Your task to perform on an android device: turn on the 24-hour format for clock Image 0: 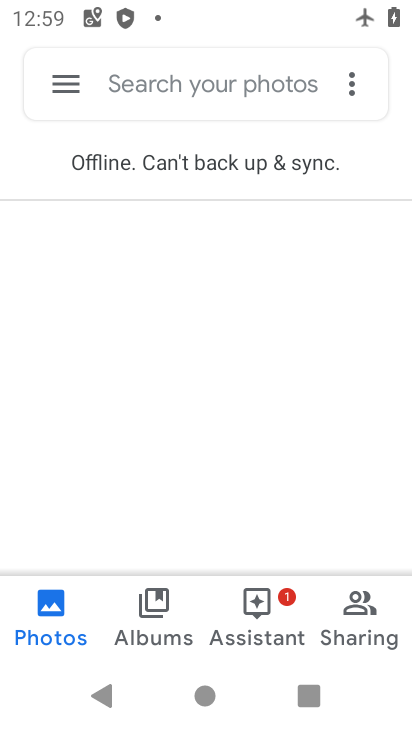
Step 0: press home button
Your task to perform on an android device: turn on the 24-hour format for clock Image 1: 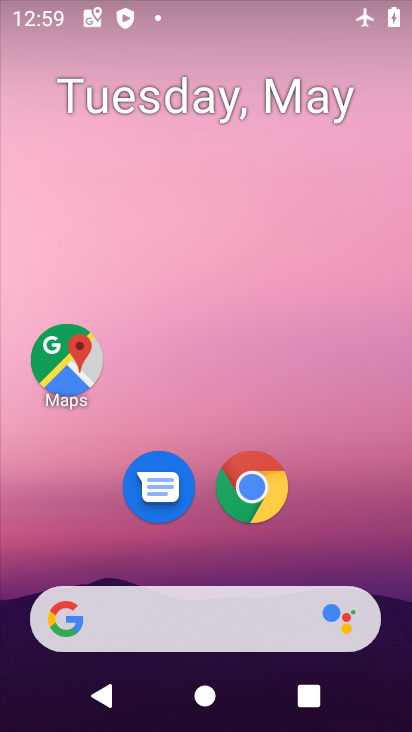
Step 1: drag from (273, 406) to (247, 48)
Your task to perform on an android device: turn on the 24-hour format for clock Image 2: 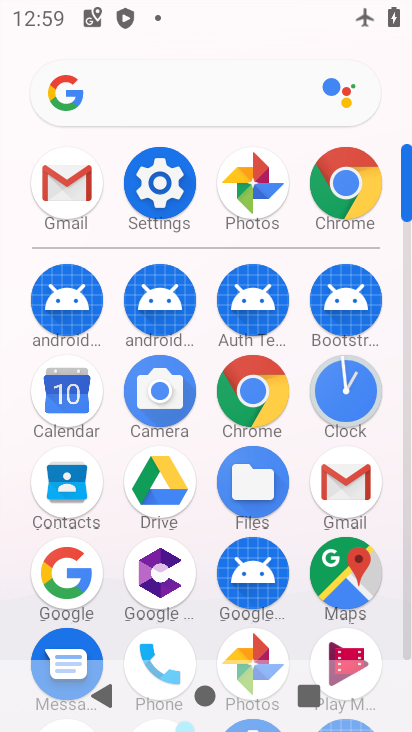
Step 2: click (355, 386)
Your task to perform on an android device: turn on the 24-hour format for clock Image 3: 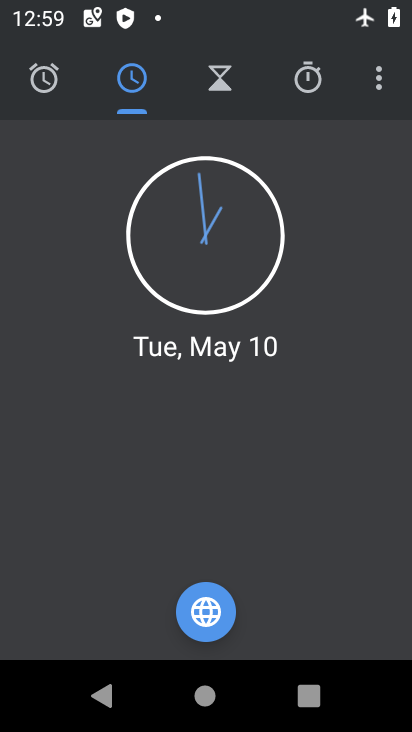
Step 3: click (376, 88)
Your task to perform on an android device: turn on the 24-hour format for clock Image 4: 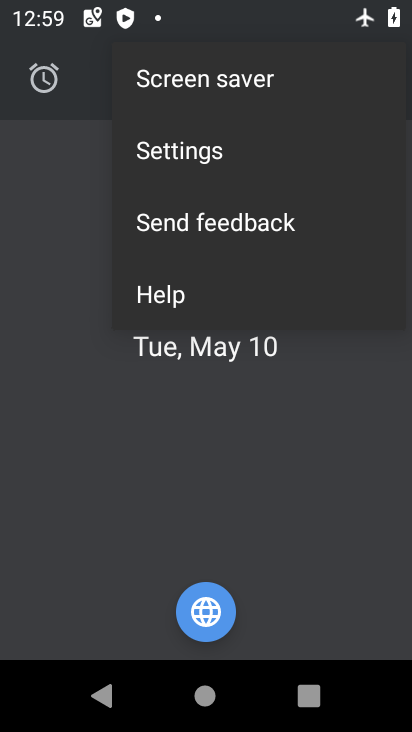
Step 4: click (206, 155)
Your task to perform on an android device: turn on the 24-hour format for clock Image 5: 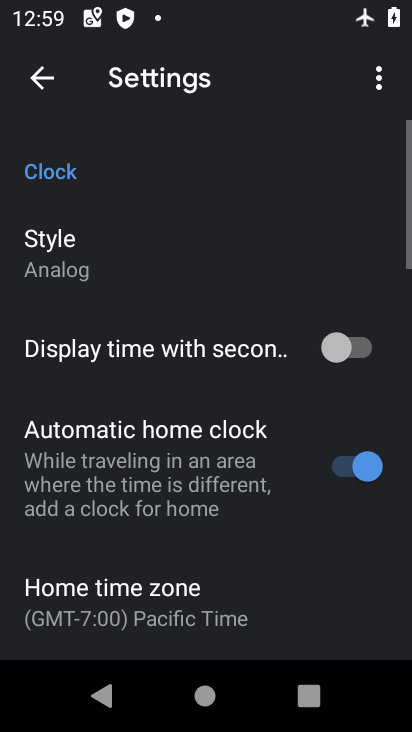
Step 5: drag from (230, 602) to (235, 154)
Your task to perform on an android device: turn on the 24-hour format for clock Image 6: 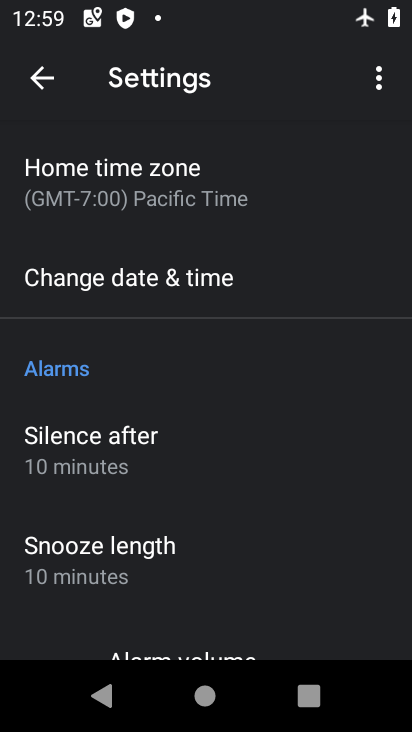
Step 6: drag from (205, 595) to (216, 504)
Your task to perform on an android device: turn on the 24-hour format for clock Image 7: 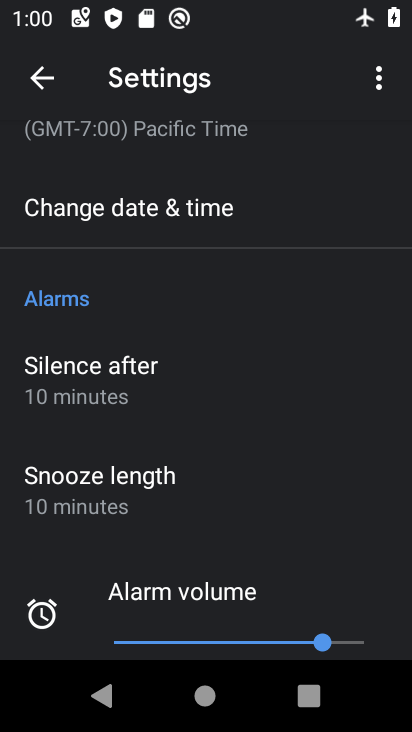
Step 7: click (174, 213)
Your task to perform on an android device: turn on the 24-hour format for clock Image 8: 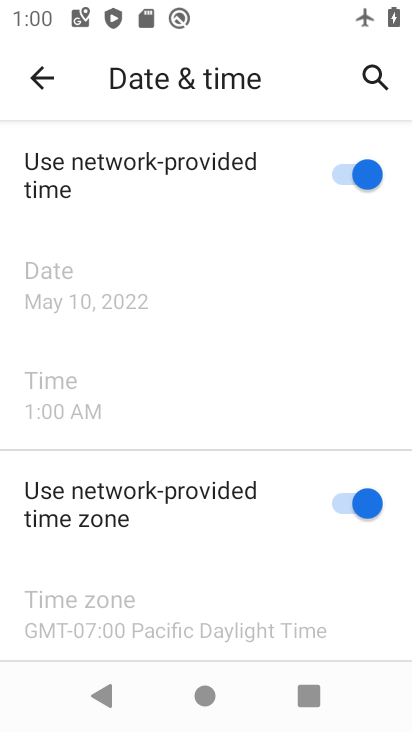
Step 8: drag from (209, 580) to (212, 271)
Your task to perform on an android device: turn on the 24-hour format for clock Image 9: 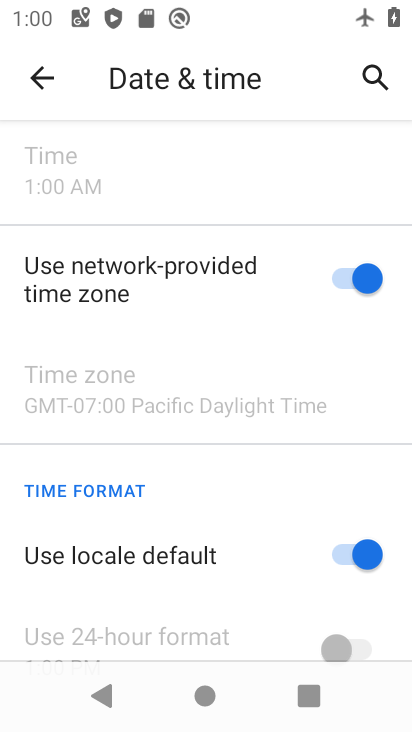
Step 9: click (336, 557)
Your task to perform on an android device: turn on the 24-hour format for clock Image 10: 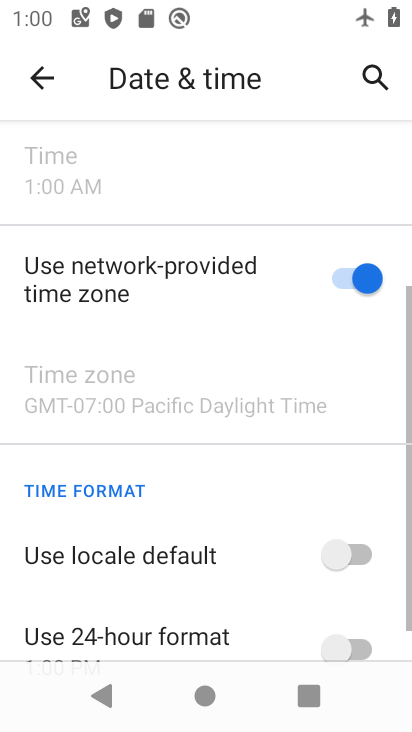
Step 10: click (368, 642)
Your task to perform on an android device: turn on the 24-hour format for clock Image 11: 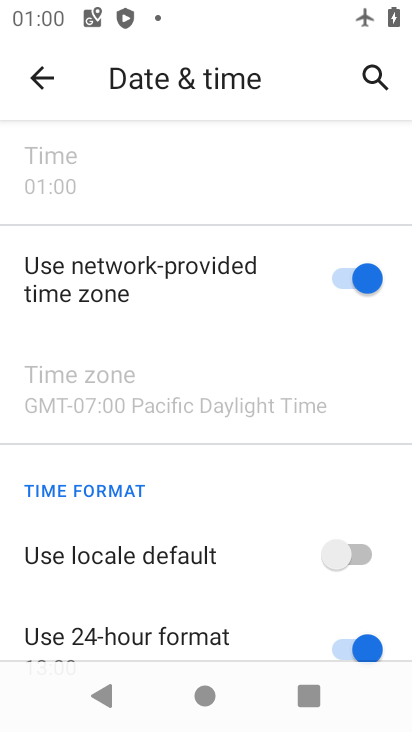
Step 11: task complete